Your task to perform on an android device: install app "McDonald's" Image 0: 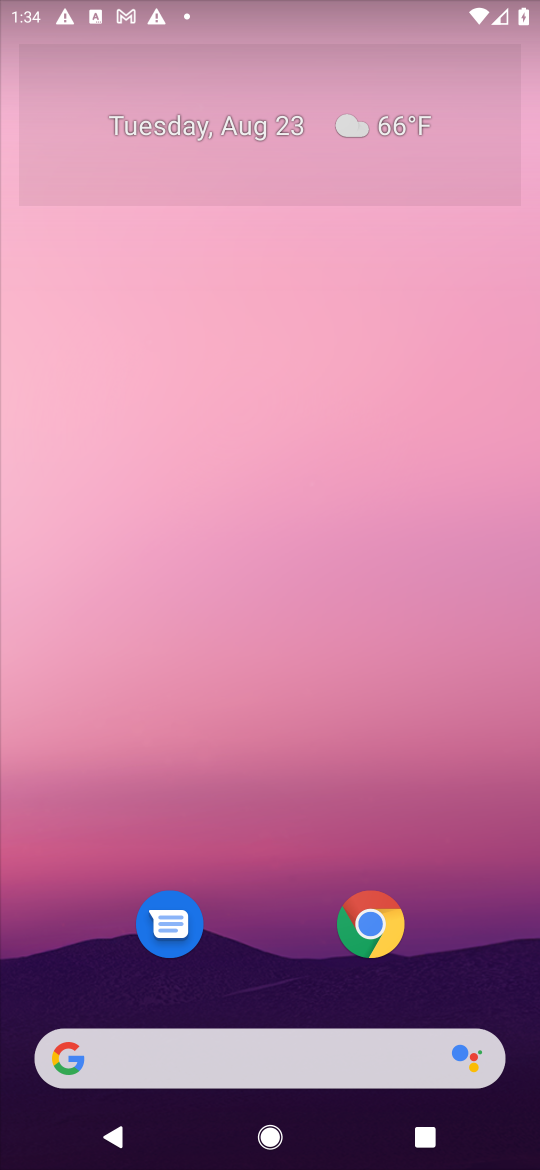
Step 0: drag from (436, 882) to (434, 135)
Your task to perform on an android device: install app "McDonald's" Image 1: 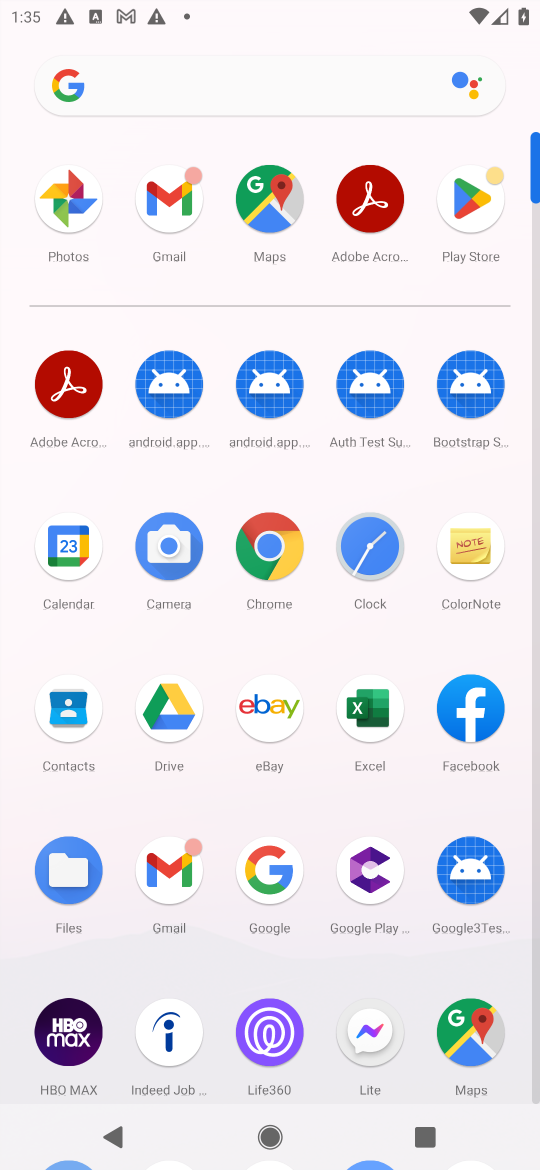
Step 1: click (482, 194)
Your task to perform on an android device: install app "McDonald's" Image 2: 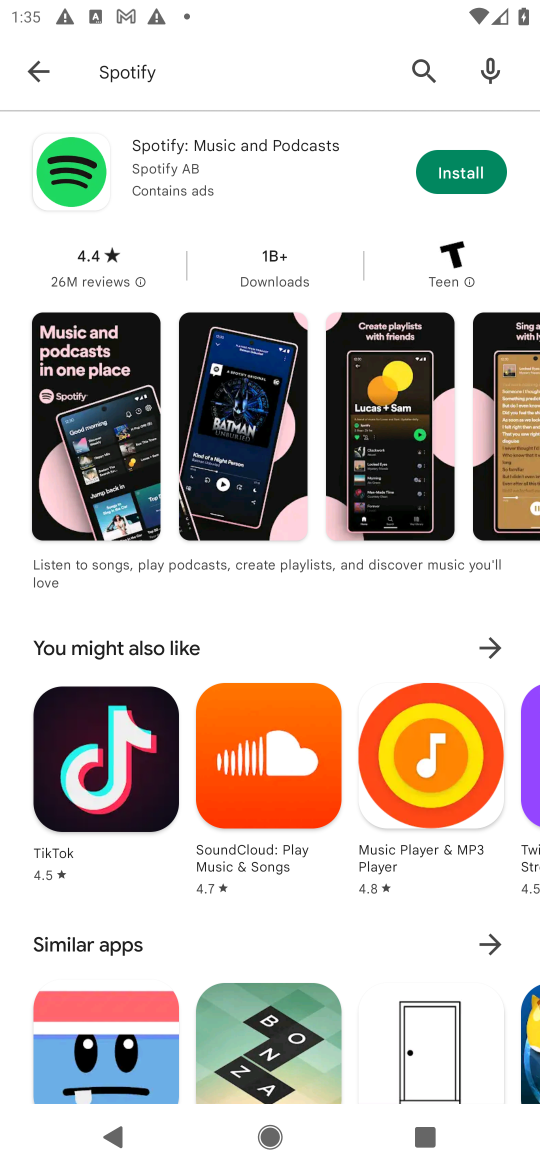
Step 2: press back button
Your task to perform on an android device: install app "McDonald's" Image 3: 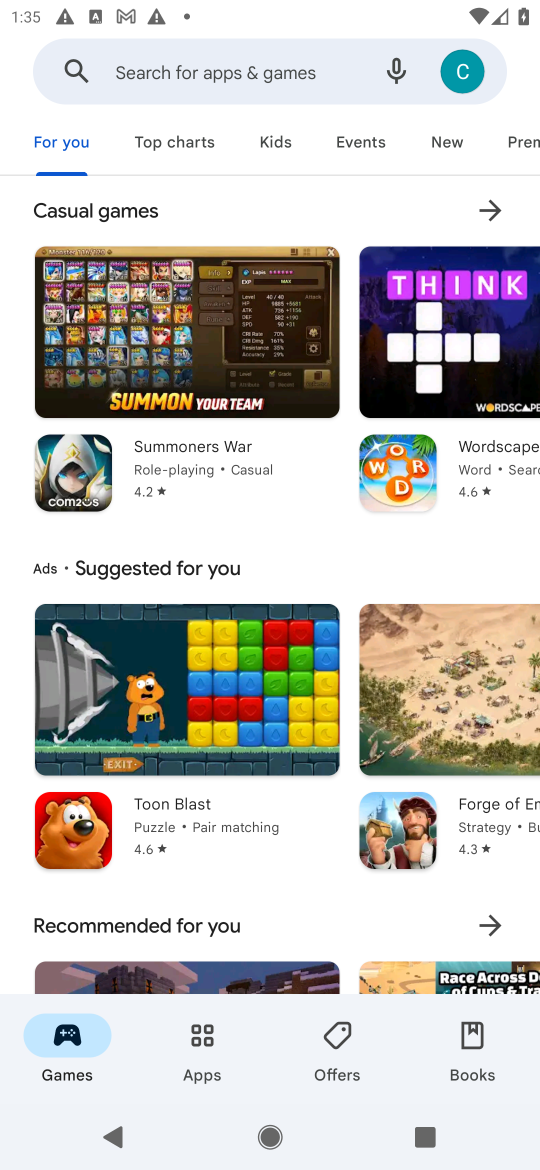
Step 3: click (232, 72)
Your task to perform on an android device: install app "McDonald's" Image 4: 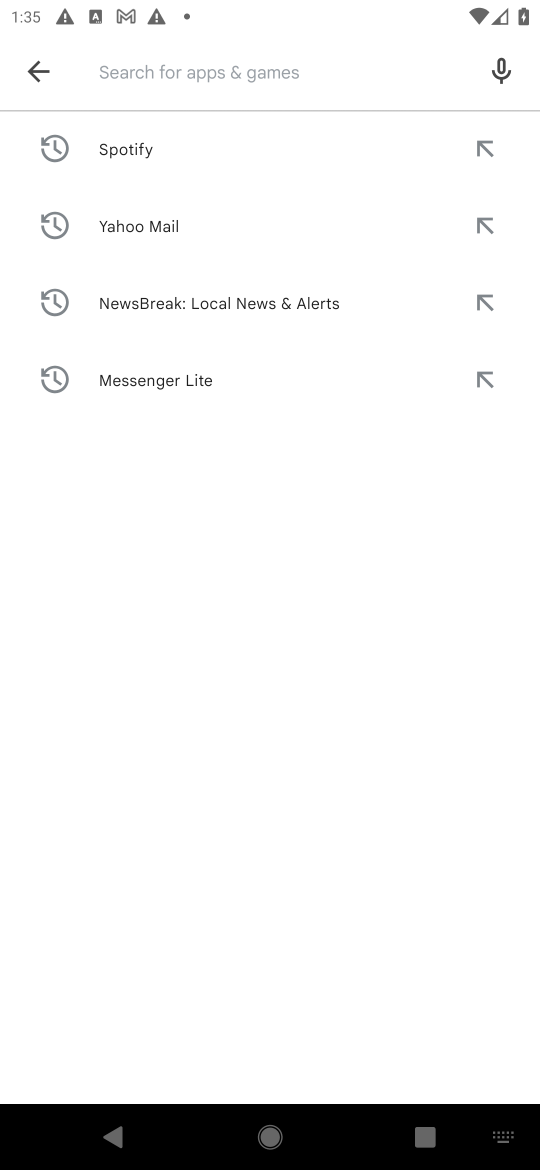
Step 4: press enter
Your task to perform on an android device: install app "McDonald's" Image 5: 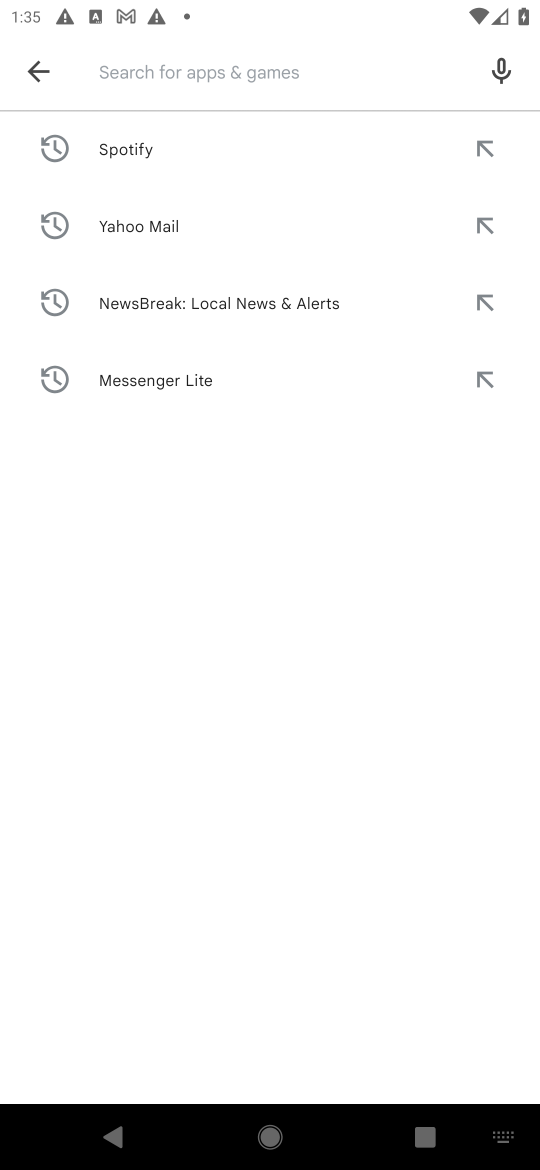
Step 5: type "McDonald's"
Your task to perform on an android device: install app "McDonald's" Image 6: 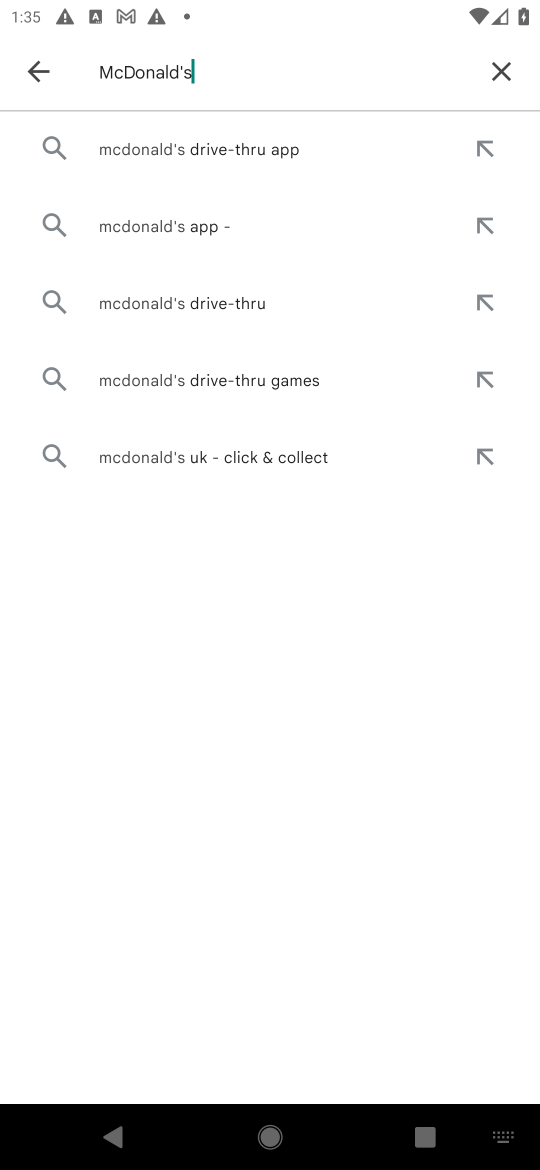
Step 6: click (209, 228)
Your task to perform on an android device: install app "McDonald's" Image 7: 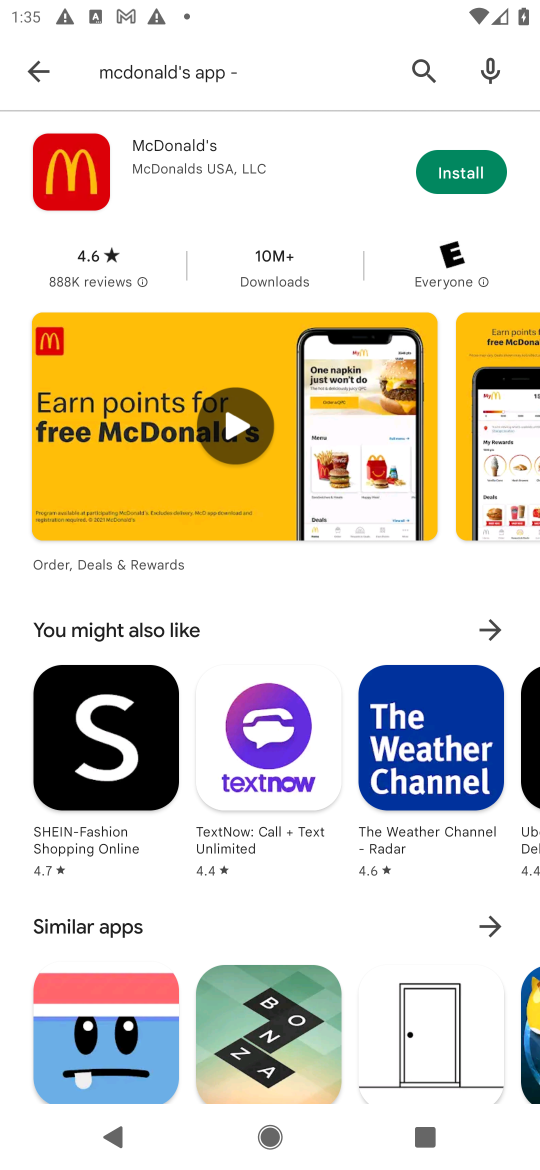
Step 7: click (464, 175)
Your task to perform on an android device: install app "McDonald's" Image 8: 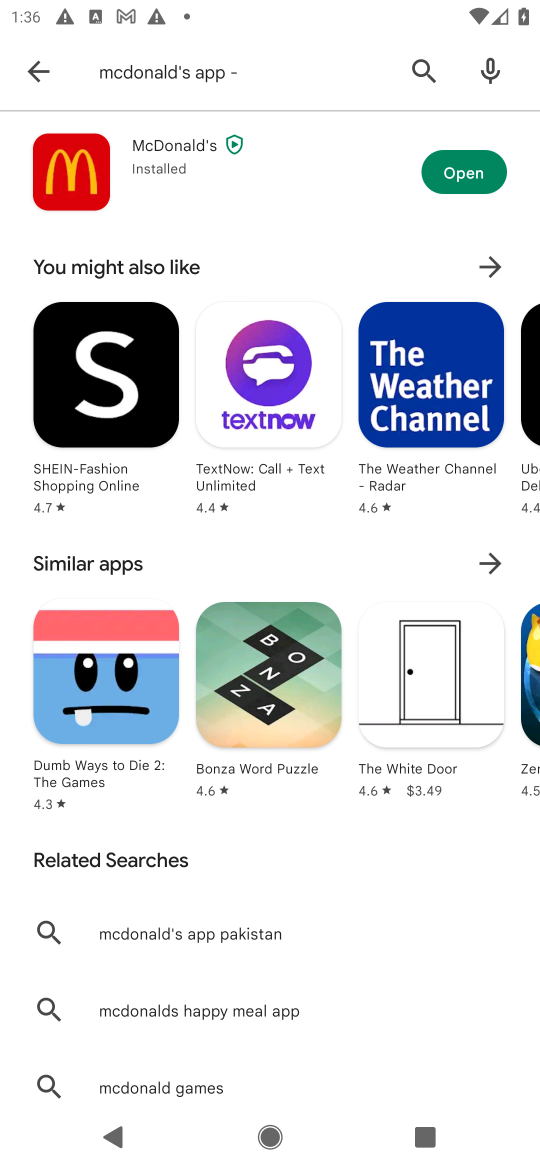
Step 8: task complete